Your task to perform on an android device: install app "Google Duo" Image 0: 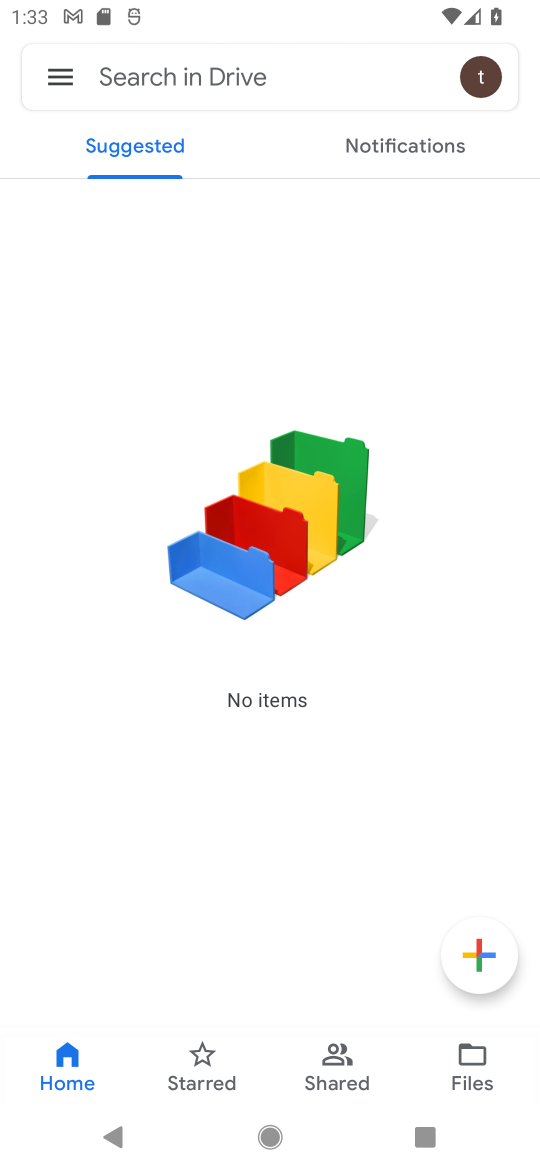
Step 0: press home button
Your task to perform on an android device: install app "Google Duo" Image 1: 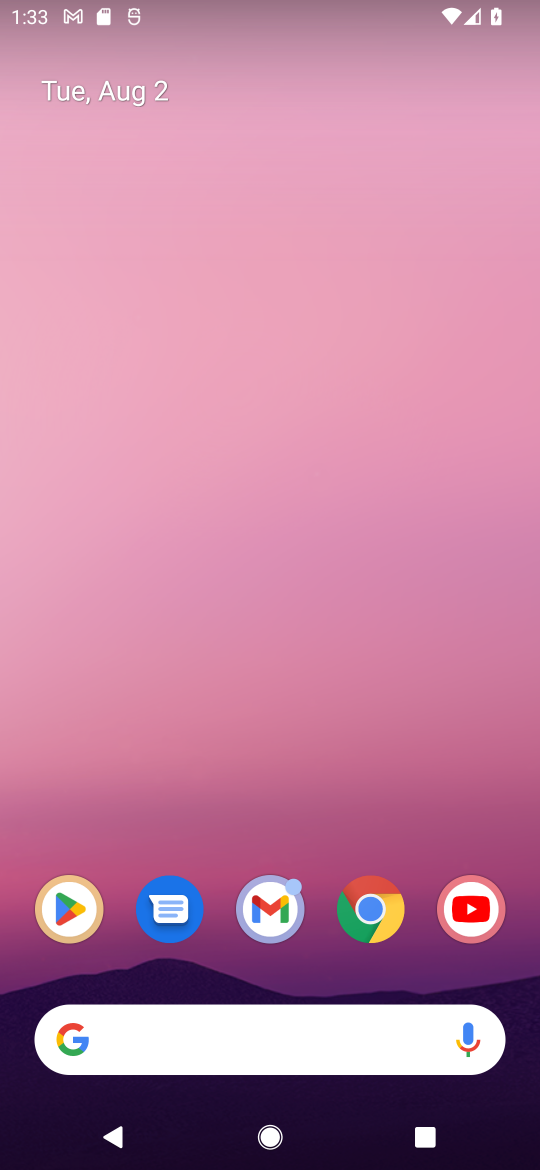
Step 1: click (68, 901)
Your task to perform on an android device: install app "Google Duo" Image 2: 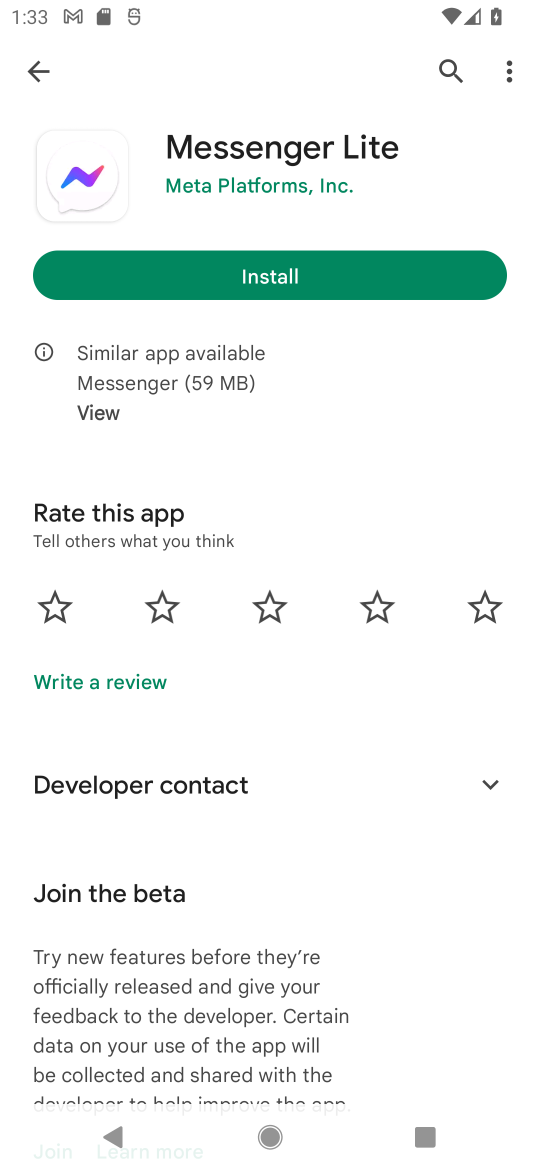
Step 2: click (449, 62)
Your task to perform on an android device: install app "Google Duo" Image 3: 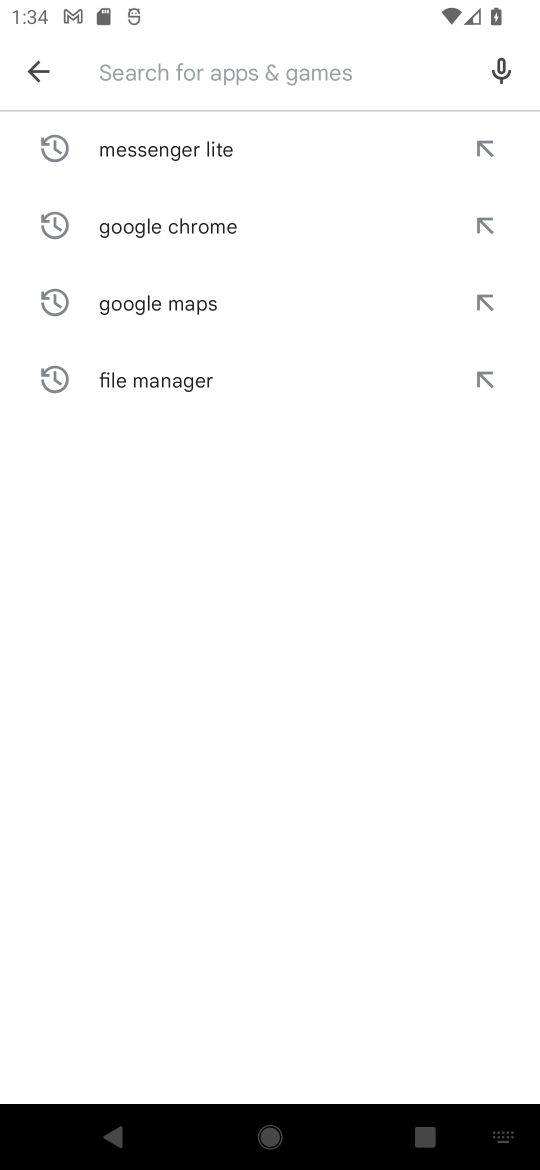
Step 3: type "Google Duo"
Your task to perform on an android device: install app "Google Duo" Image 4: 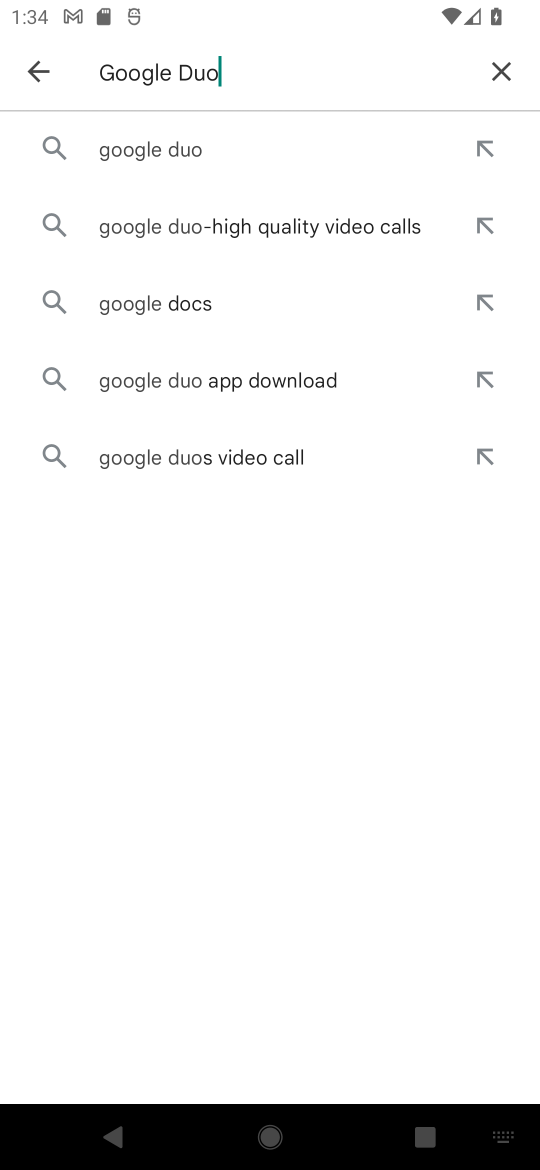
Step 4: click (168, 151)
Your task to perform on an android device: install app "Google Duo" Image 5: 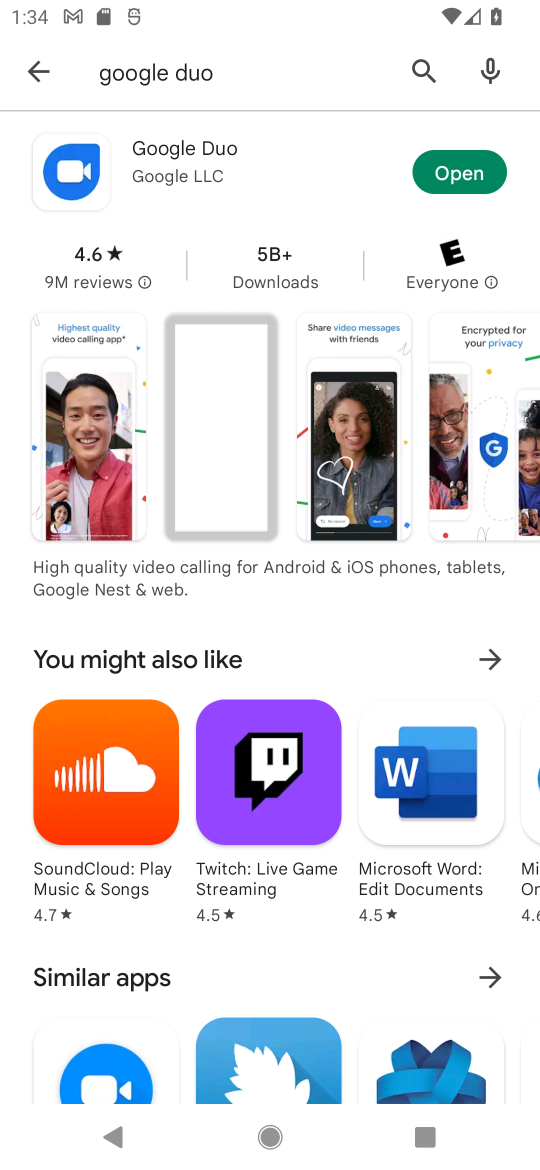
Step 5: task complete